Your task to perform on an android device: Turn off the flashlight Image 0: 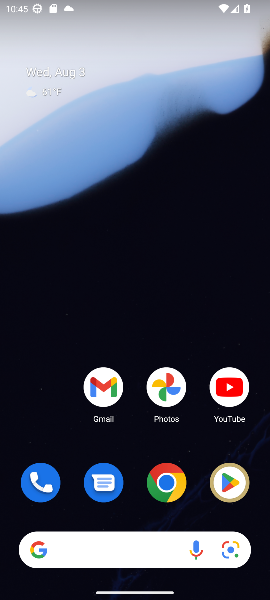
Step 0: drag from (81, 522) to (29, 51)
Your task to perform on an android device: Turn off the flashlight Image 1: 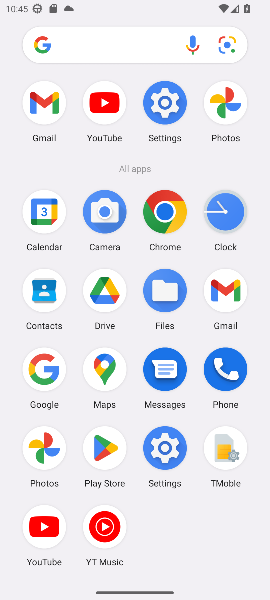
Step 1: click (161, 430)
Your task to perform on an android device: Turn off the flashlight Image 2: 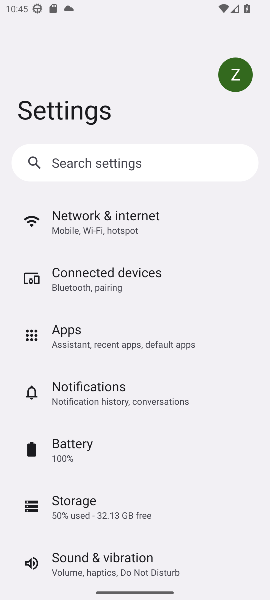
Step 2: task complete